Your task to perform on an android device: Go to Wikipedia Image 0: 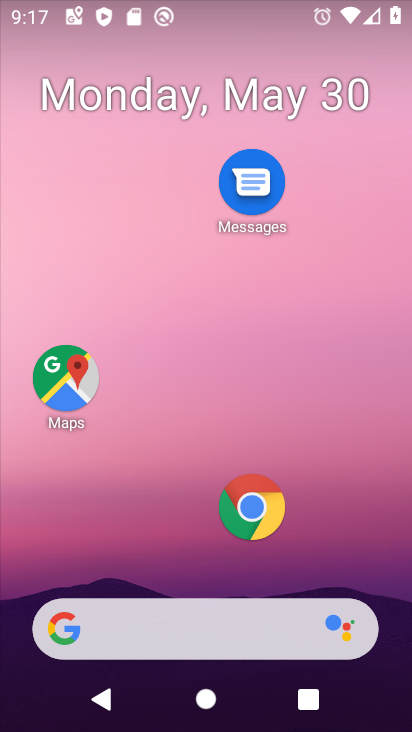
Step 0: drag from (177, 536) to (219, 222)
Your task to perform on an android device: Go to Wikipedia Image 1: 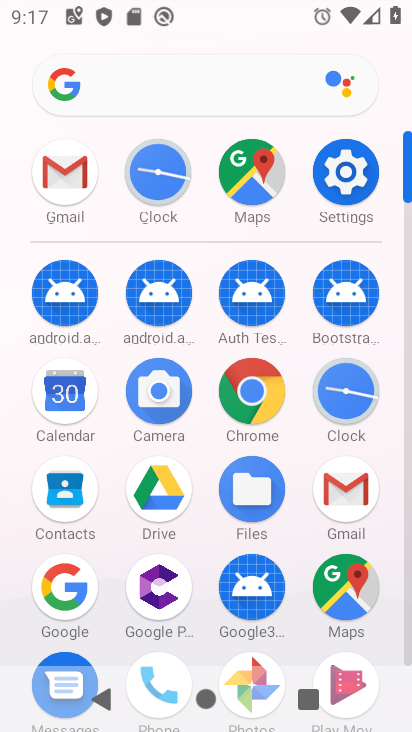
Step 1: click (223, 398)
Your task to perform on an android device: Go to Wikipedia Image 2: 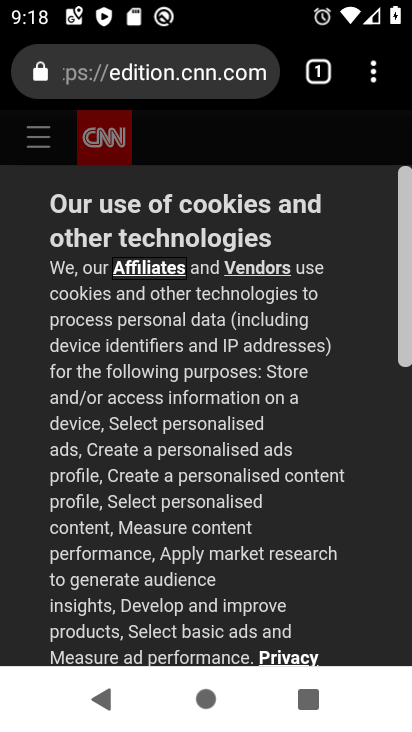
Step 2: press back button
Your task to perform on an android device: Go to Wikipedia Image 3: 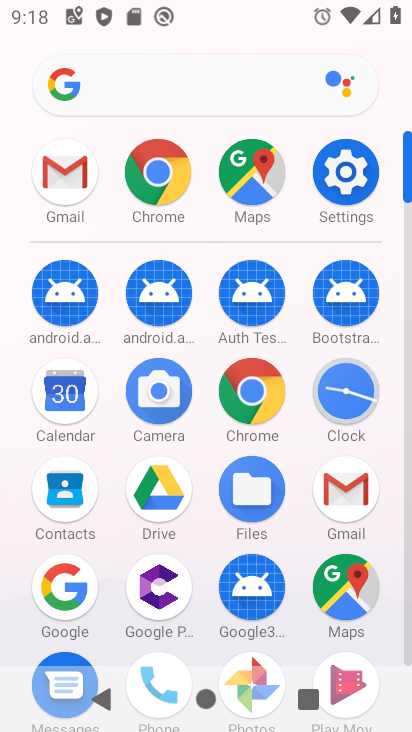
Step 3: click (261, 409)
Your task to perform on an android device: Go to Wikipedia Image 4: 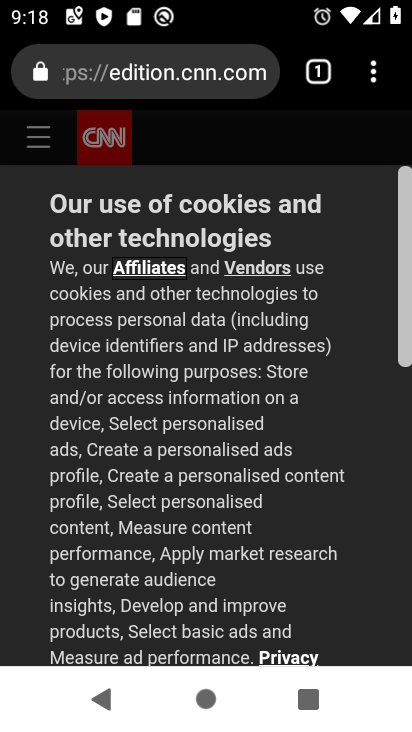
Step 4: click (320, 85)
Your task to perform on an android device: Go to Wikipedia Image 5: 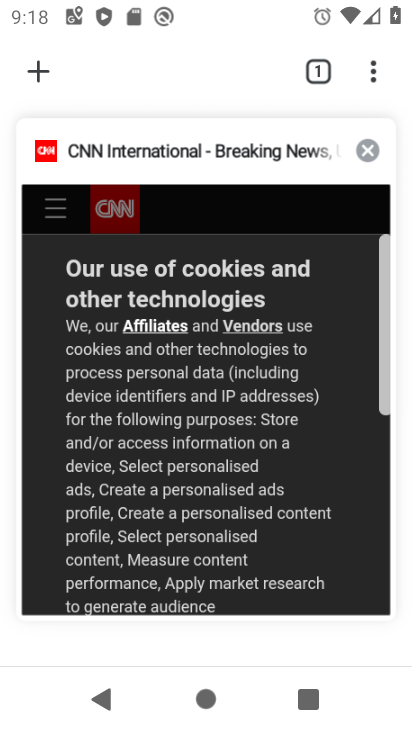
Step 5: click (361, 148)
Your task to perform on an android device: Go to Wikipedia Image 6: 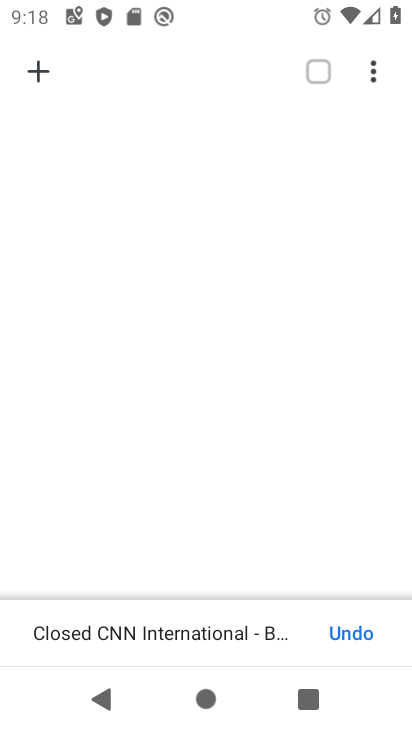
Step 6: click (39, 69)
Your task to perform on an android device: Go to Wikipedia Image 7: 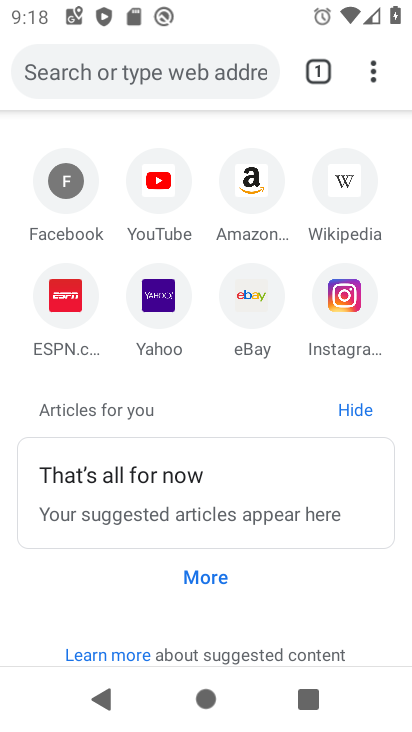
Step 7: click (330, 216)
Your task to perform on an android device: Go to Wikipedia Image 8: 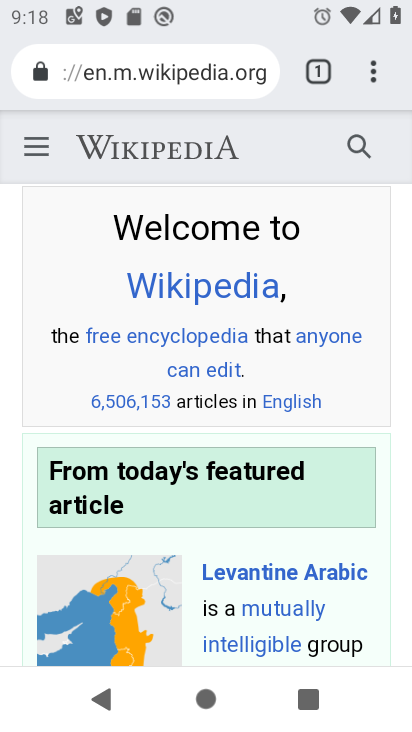
Step 8: task complete